Your task to perform on an android device: open chrome and create a bookmark for the current page Image 0: 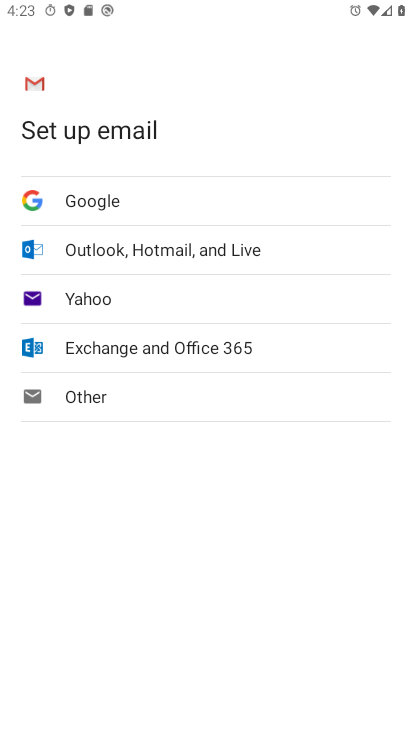
Step 0: press home button
Your task to perform on an android device: open chrome and create a bookmark for the current page Image 1: 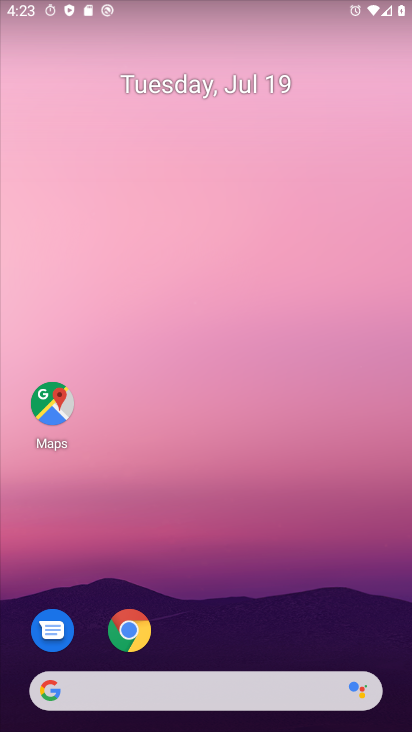
Step 1: click (132, 632)
Your task to perform on an android device: open chrome and create a bookmark for the current page Image 2: 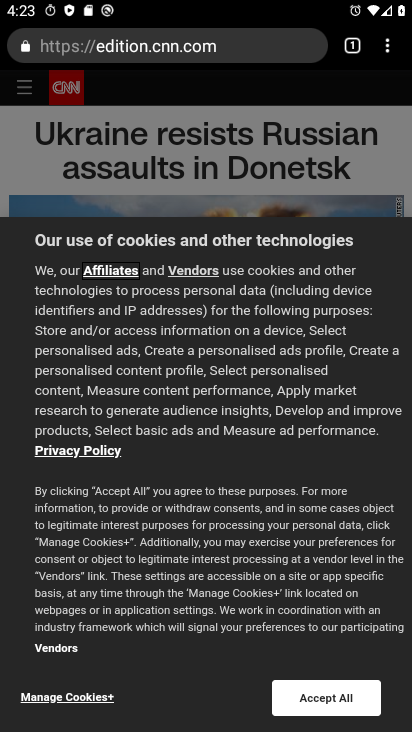
Step 2: click (384, 36)
Your task to perform on an android device: open chrome and create a bookmark for the current page Image 3: 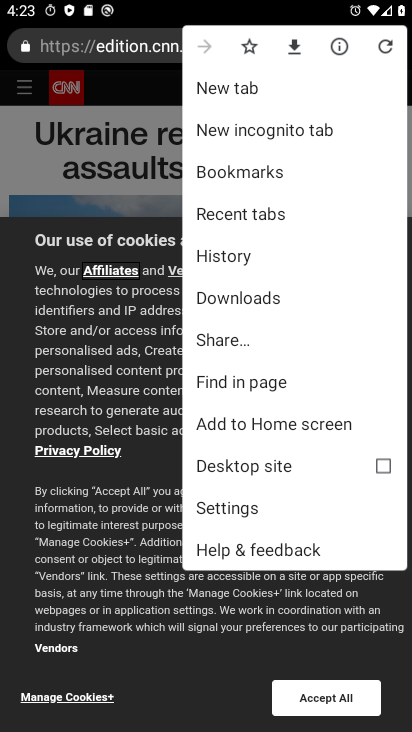
Step 3: click (384, 48)
Your task to perform on an android device: open chrome and create a bookmark for the current page Image 4: 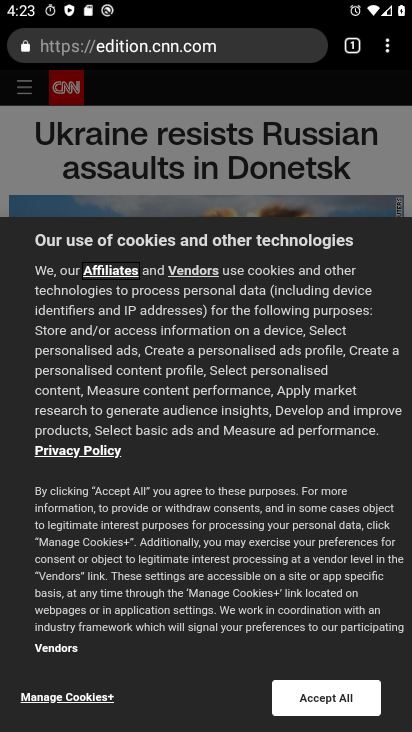
Step 4: click (245, 53)
Your task to perform on an android device: open chrome and create a bookmark for the current page Image 5: 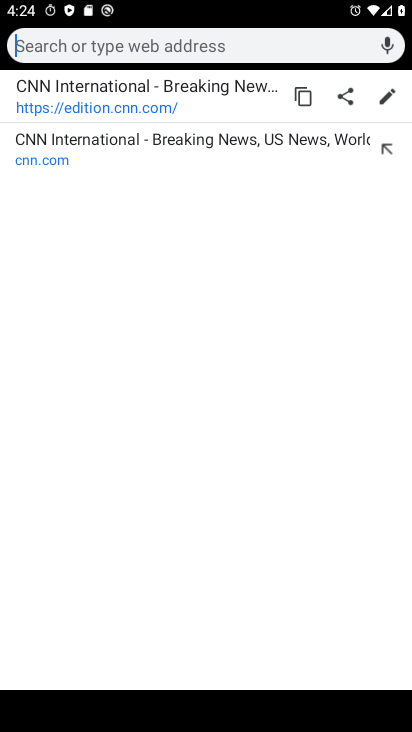
Step 5: press back button
Your task to perform on an android device: open chrome and create a bookmark for the current page Image 6: 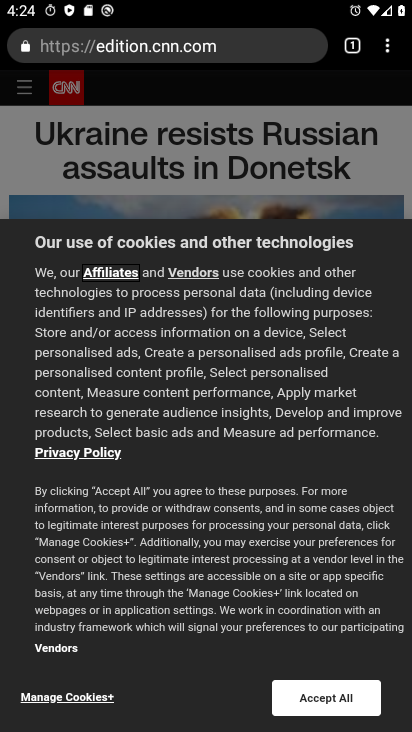
Step 6: click (387, 53)
Your task to perform on an android device: open chrome and create a bookmark for the current page Image 7: 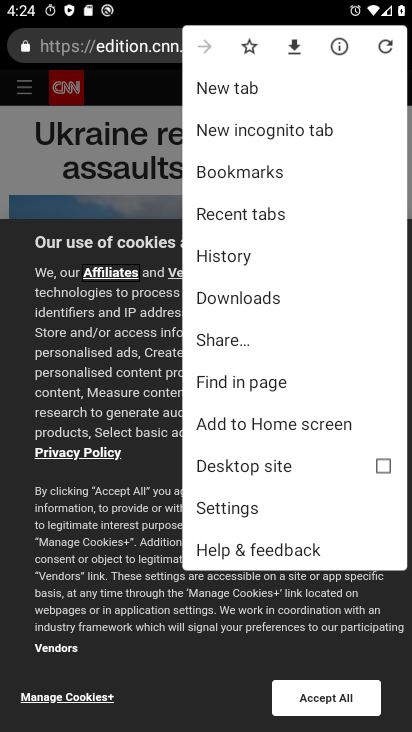
Step 7: click (248, 49)
Your task to perform on an android device: open chrome and create a bookmark for the current page Image 8: 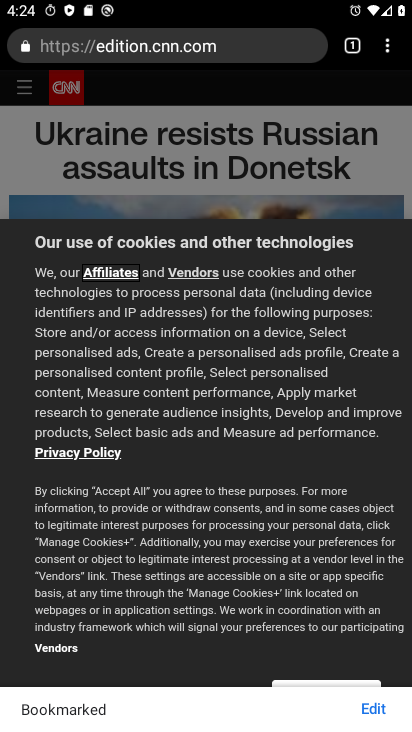
Step 8: task complete